Your task to perform on an android device: Open the calendar app, open the side menu, and click the "Day" option Image 0: 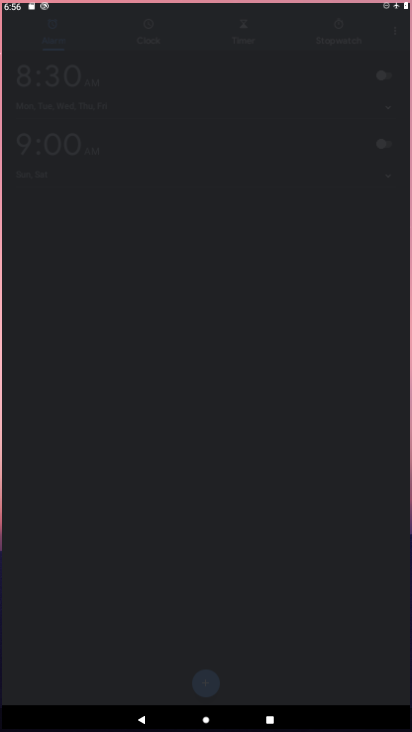
Step 0: drag from (361, 615) to (178, 4)
Your task to perform on an android device: Open the calendar app, open the side menu, and click the "Day" option Image 1: 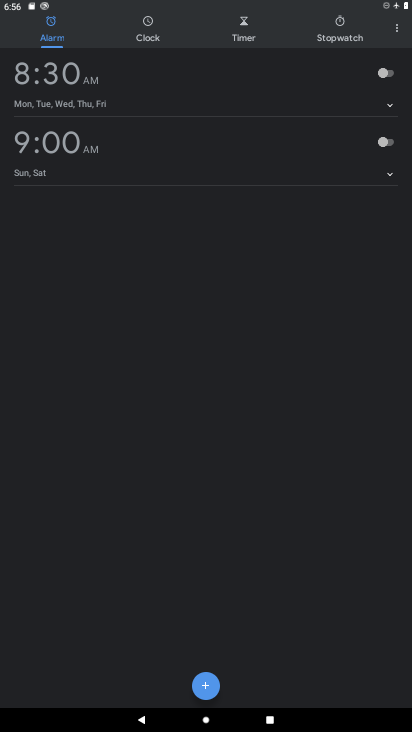
Step 1: press home button
Your task to perform on an android device: Open the calendar app, open the side menu, and click the "Day" option Image 2: 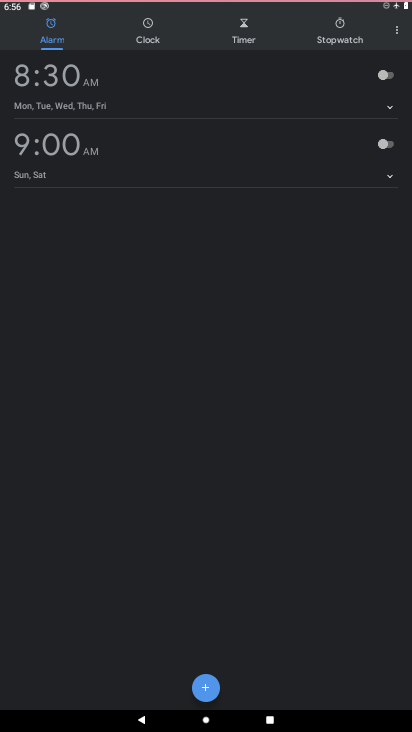
Step 2: drag from (406, 651) to (195, 4)
Your task to perform on an android device: Open the calendar app, open the side menu, and click the "Day" option Image 3: 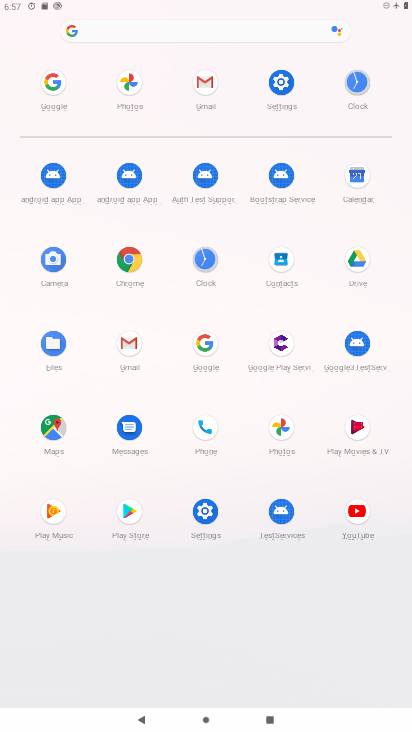
Step 3: click (364, 165)
Your task to perform on an android device: Open the calendar app, open the side menu, and click the "Day" option Image 4: 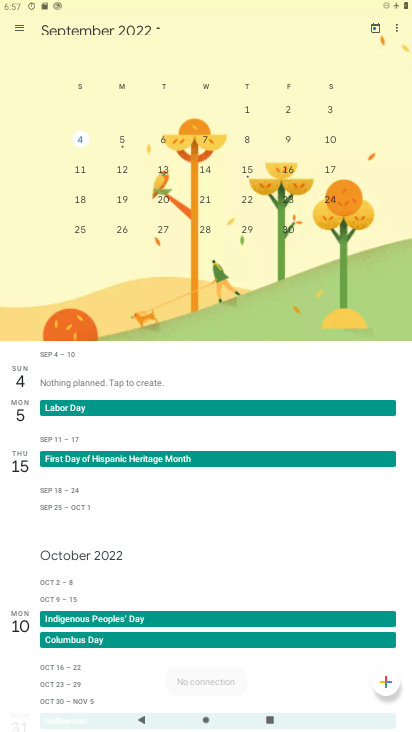
Step 4: click (14, 28)
Your task to perform on an android device: Open the calendar app, open the side menu, and click the "Day" option Image 5: 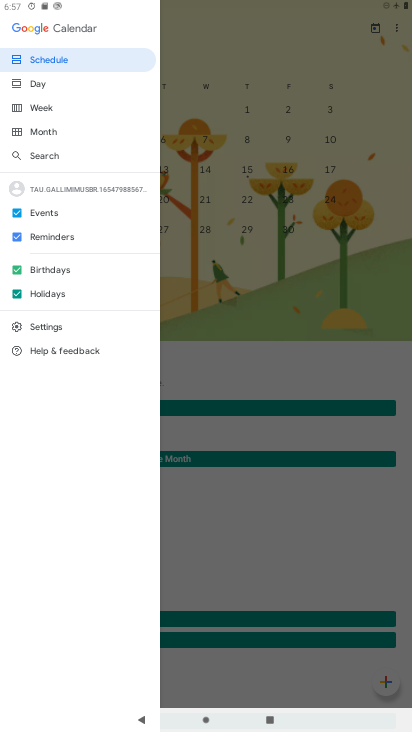
Step 5: click (47, 83)
Your task to perform on an android device: Open the calendar app, open the side menu, and click the "Day" option Image 6: 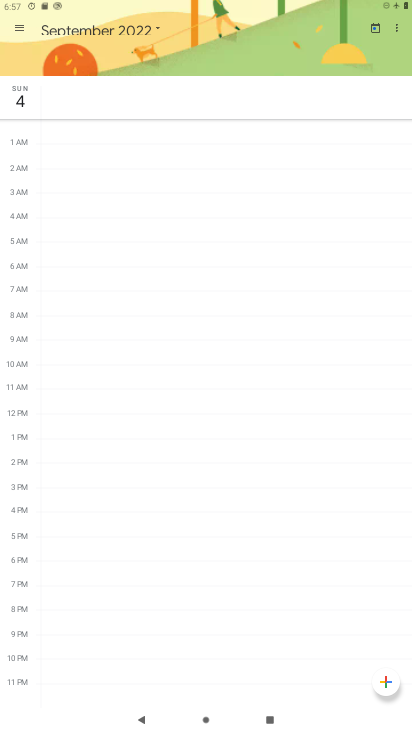
Step 6: task complete